Your task to perform on an android device: turn off location Image 0: 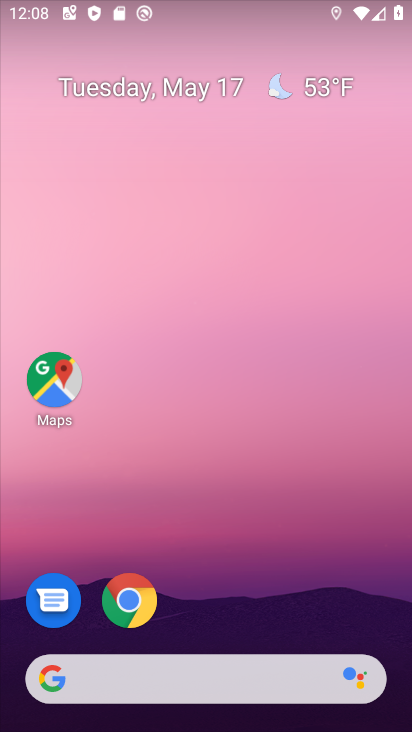
Step 0: drag from (240, 627) to (278, 156)
Your task to perform on an android device: turn off location Image 1: 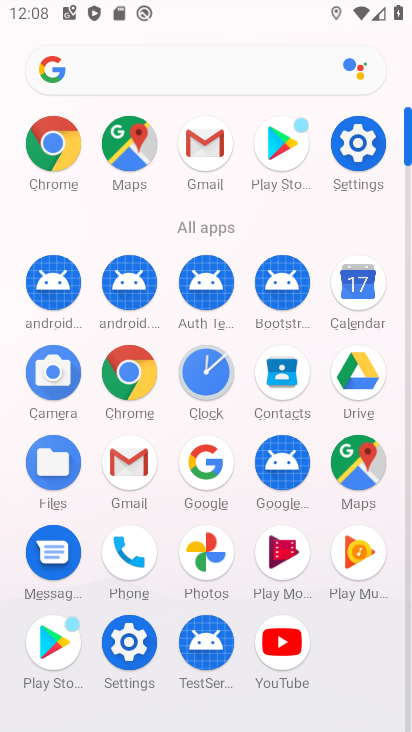
Step 1: click (356, 151)
Your task to perform on an android device: turn off location Image 2: 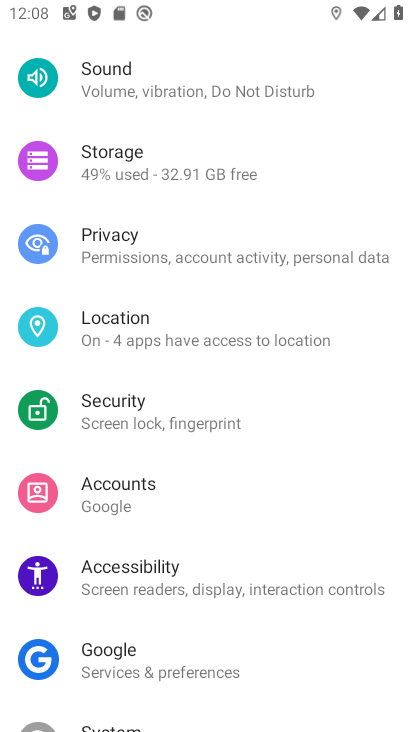
Step 2: click (268, 347)
Your task to perform on an android device: turn off location Image 3: 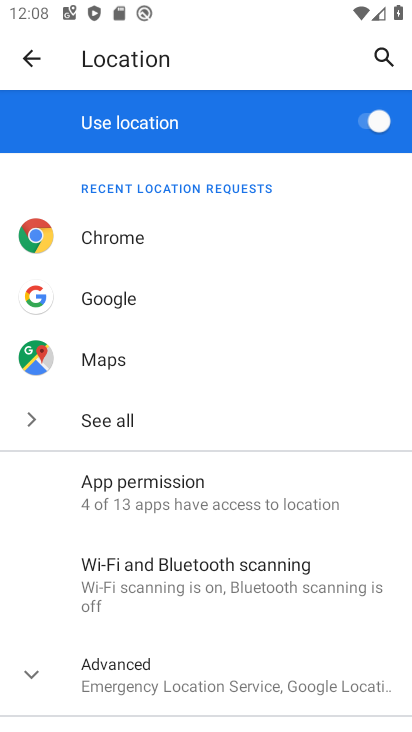
Step 3: click (376, 112)
Your task to perform on an android device: turn off location Image 4: 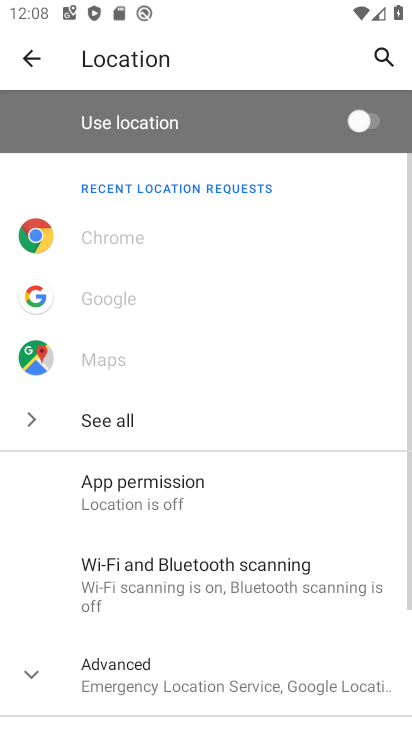
Step 4: task complete